Your task to perform on an android device: Open the map Image 0: 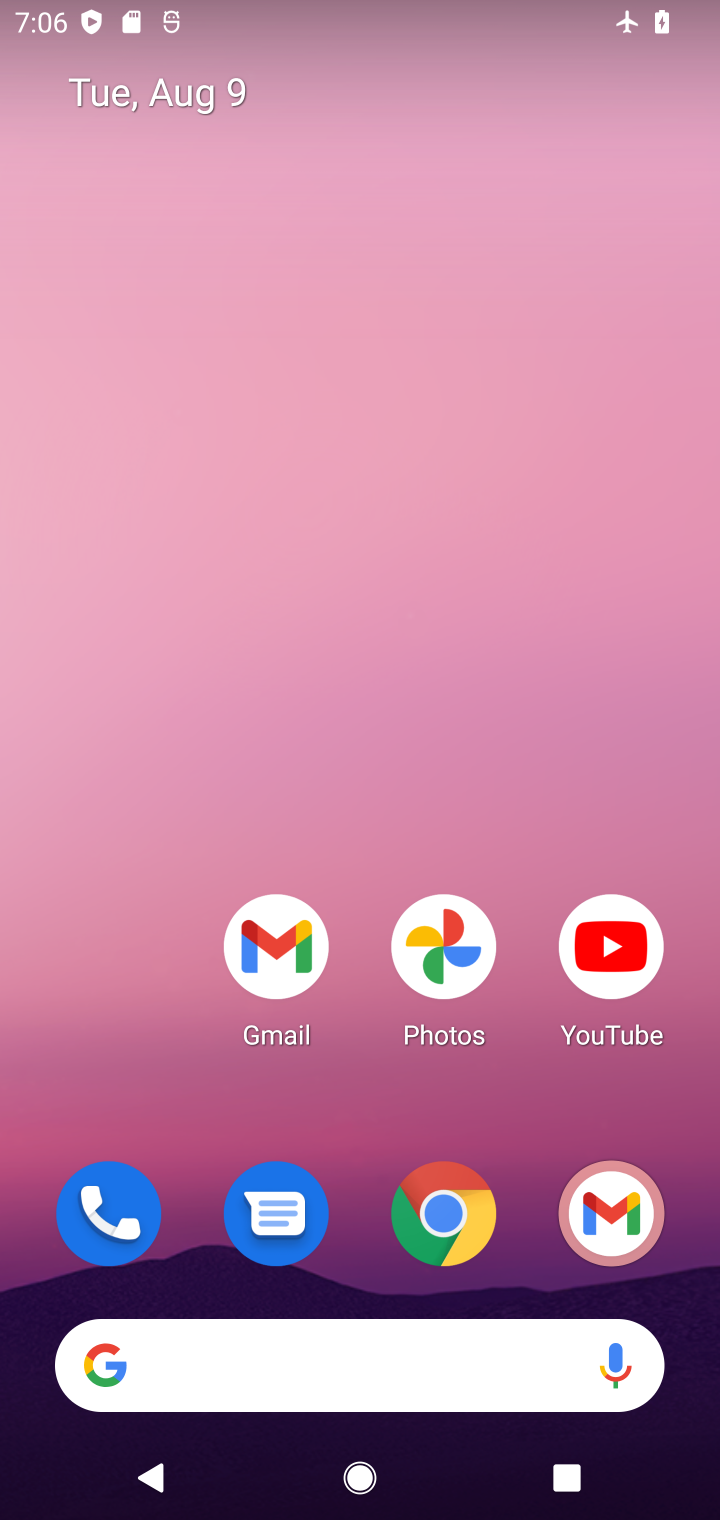
Step 0: drag from (402, 1300) to (329, 261)
Your task to perform on an android device: Open the map Image 1: 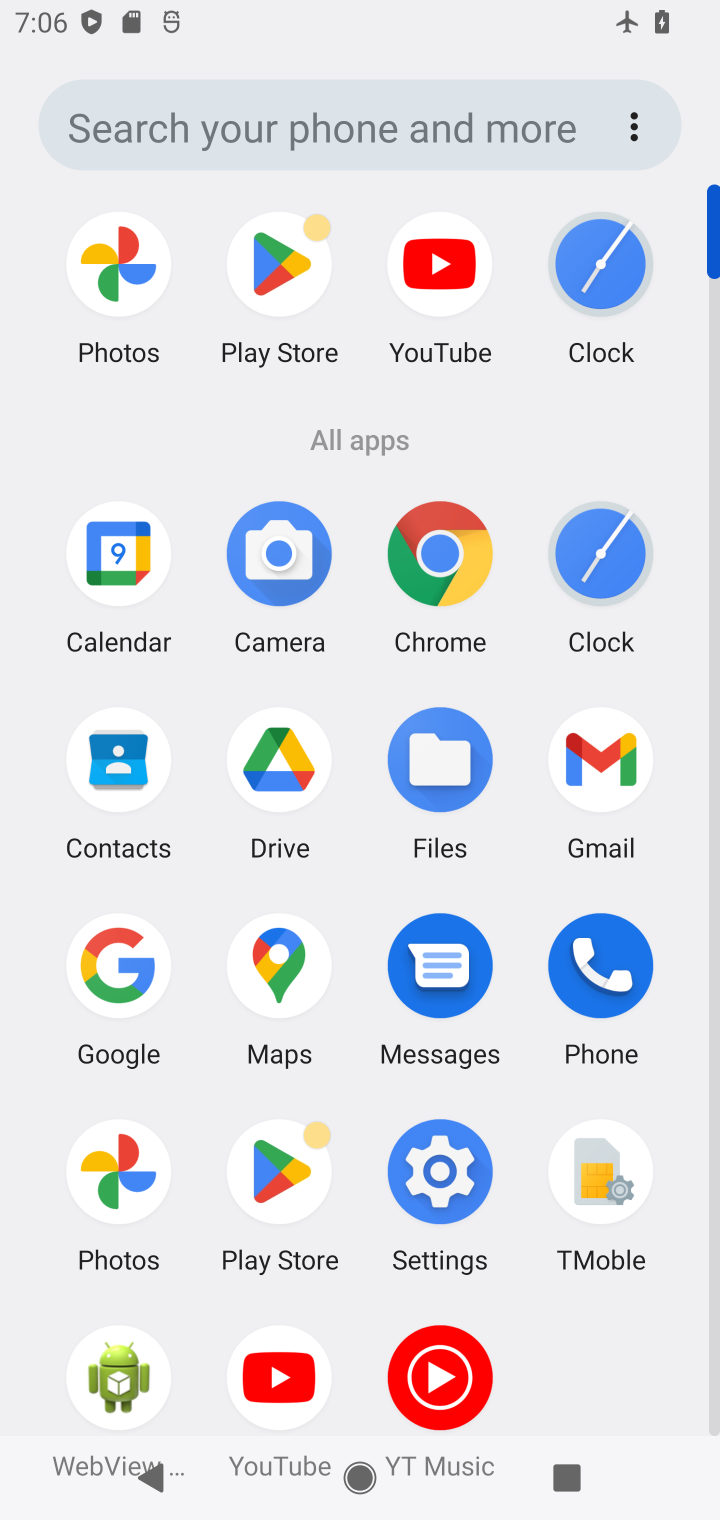
Step 1: click (280, 1028)
Your task to perform on an android device: Open the map Image 2: 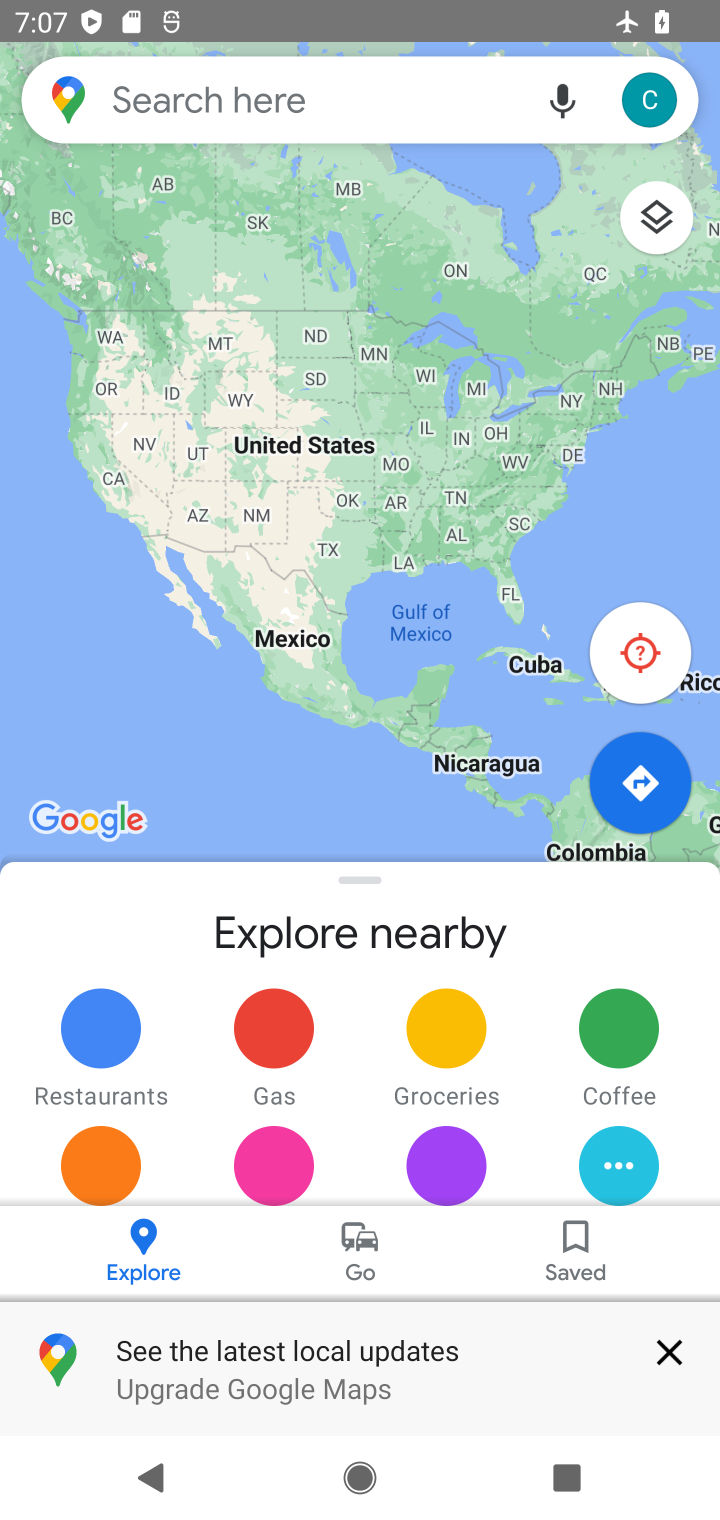
Step 2: task complete